Your task to perform on an android device: toggle location history Image 0: 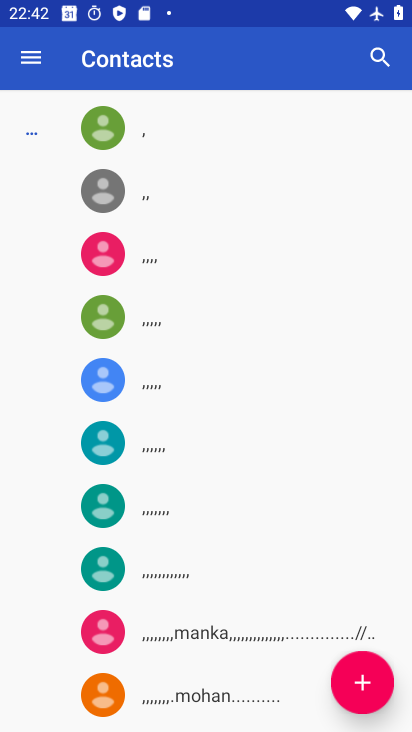
Step 0: press home button
Your task to perform on an android device: toggle location history Image 1: 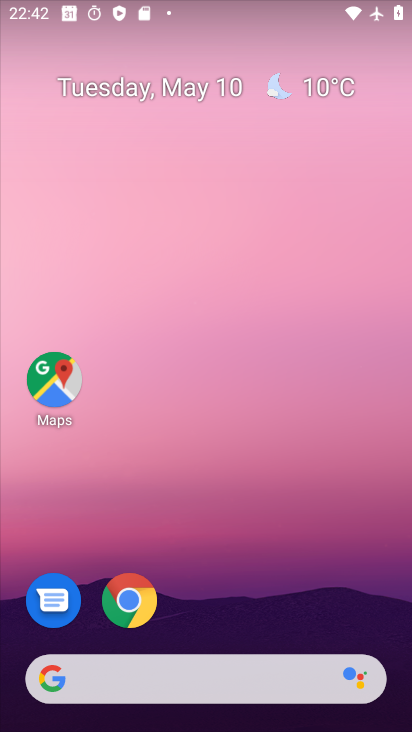
Step 1: drag from (292, 491) to (380, 33)
Your task to perform on an android device: toggle location history Image 2: 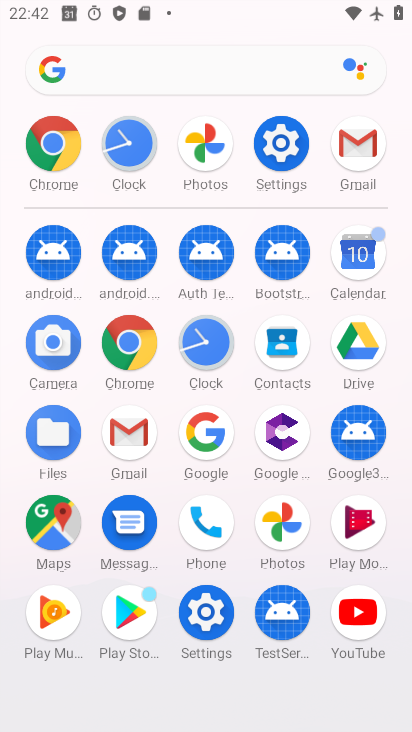
Step 2: click (272, 152)
Your task to perform on an android device: toggle location history Image 3: 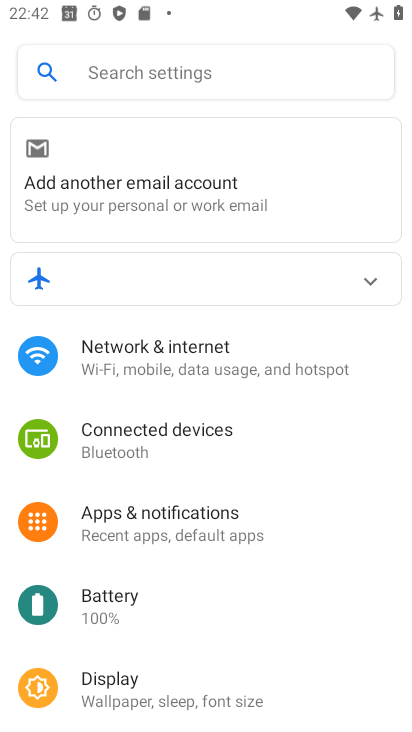
Step 3: drag from (296, 542) to (298, 163)
Your task to perform on an android device: toggle location history Image 4: 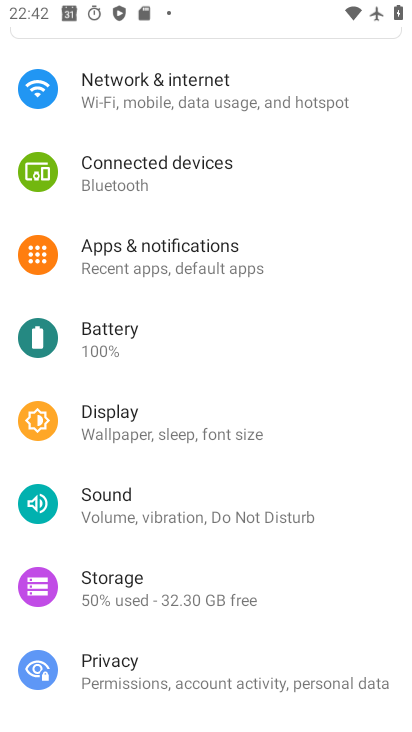
Step 4: drag from (169, 584) to (189, 179)
Your task to perform on an android device: toggle location history Image 5: 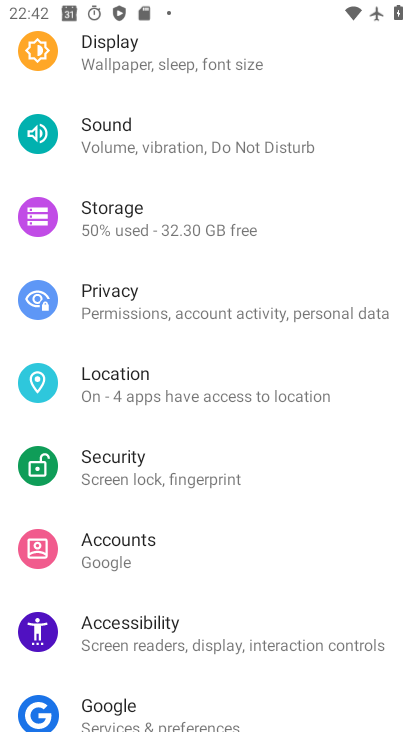
Step 5: click (125, 390)
Your task to perform on an android device: toggle location history Image 6: 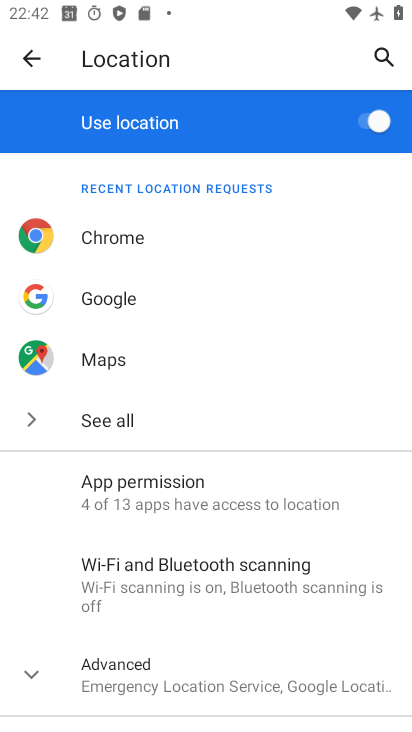
Step 6: drag from (245, 578) to (270, 264)
Your task to perform on an android device: toggle location history Image 7: 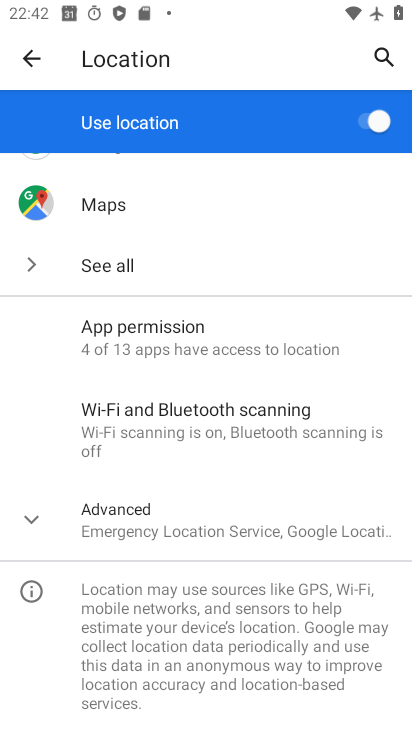
Step 7: drag from (172, 603) to (184, 299)
Your task to perform on an android device: toggle location history Image 8: 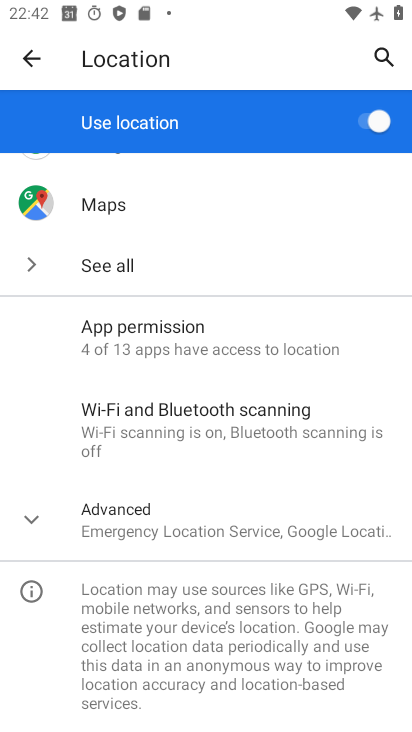
Step 8: click (166, 529)
Your task to perform on an android device: toggle location history Image 9: 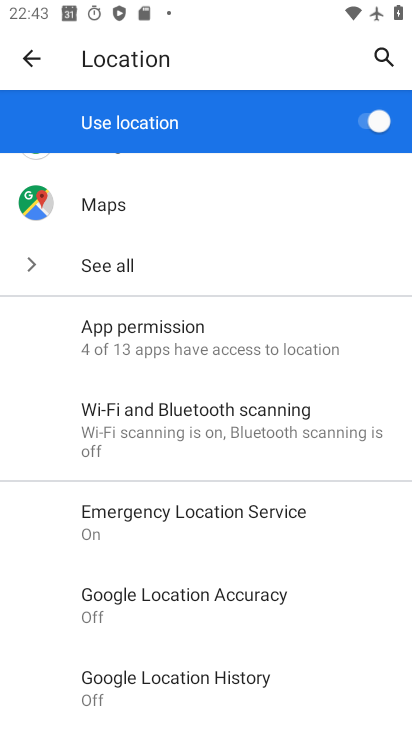
Step 9: drag from (132, 613) to (178, 271)
Your task to perform on an android device: toggle location history Image 10: 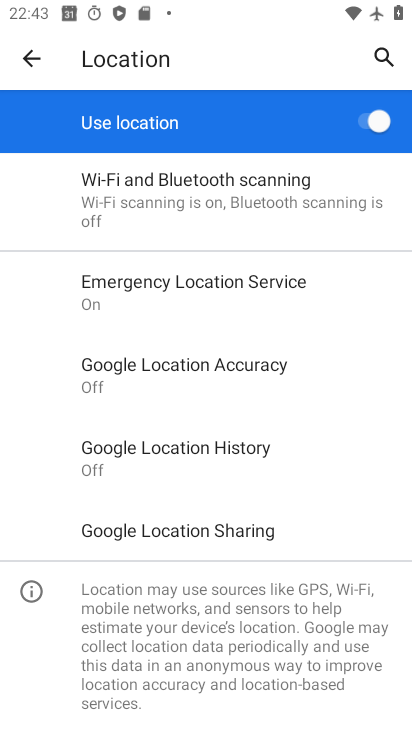
Step 10: click (193, 457)
Your task to perform on an android device: toggle location history Image 11: 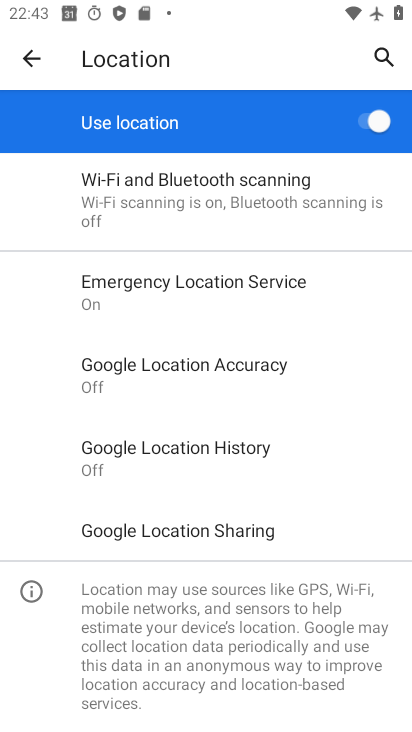
Step 11: drag from (234, 620) to (242, 269)
Your task to perform on an android device: toggle location history Image 12: 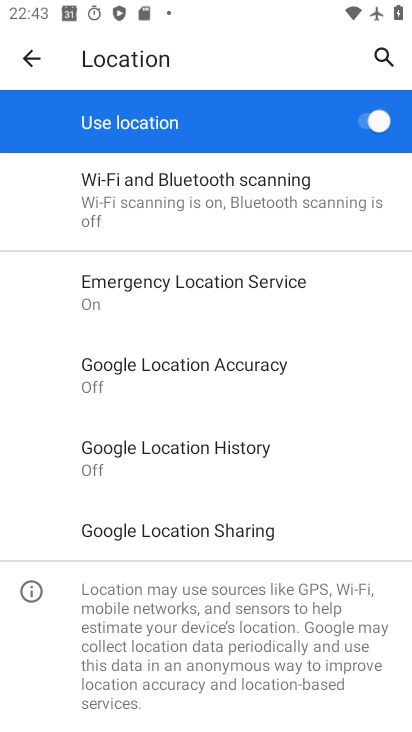
Step 12: click (183, 457)
Your task to perform on an android device: toggle location history Image 13: 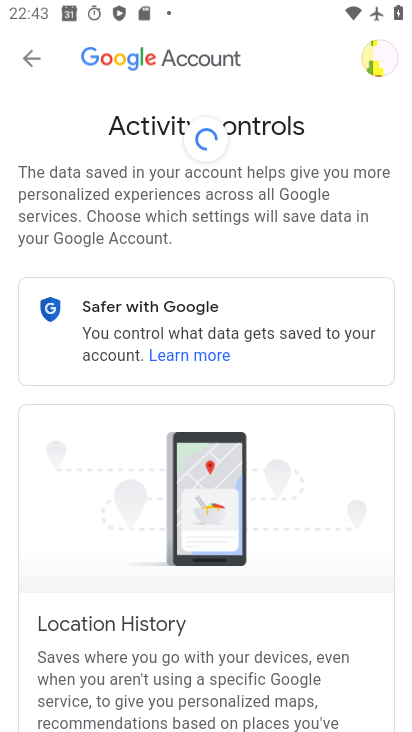
Step 13: drag from (276, 654) to (330, 377)
Your task to perform on an android device: toggle location history Image 14: 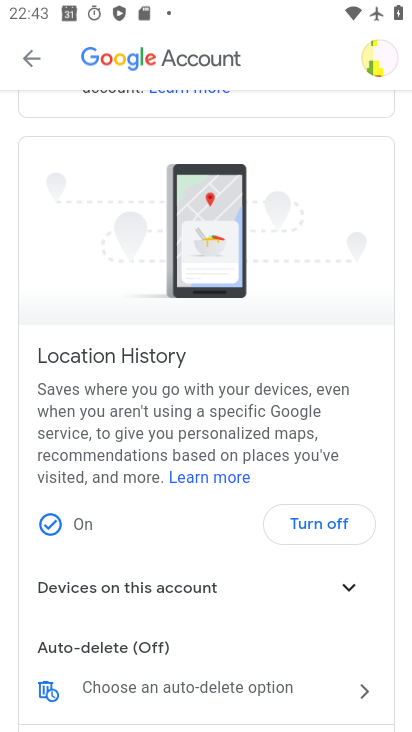
Step 14: click (317, 525)
Your task to perform on an android device: toggle location history Image 15: 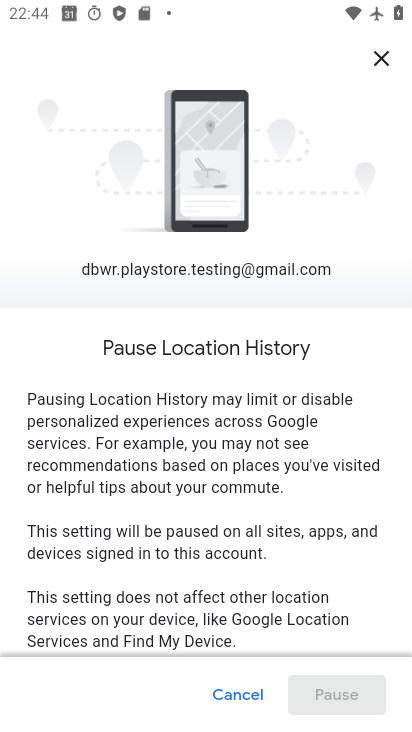
Step 15: drag from (267, 599) to (304, 267)
Your task to perform on an android device: toggle location history Image 16: 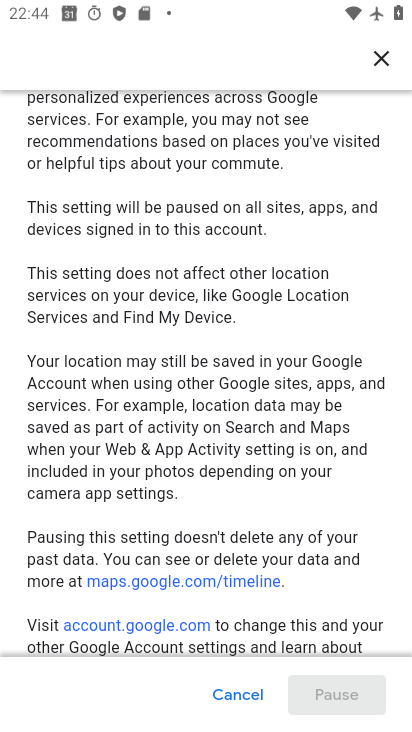
Step 16: drag from (253, 560) to (323, 228)
Your task to perform on an android device: toggle location history Image 17: 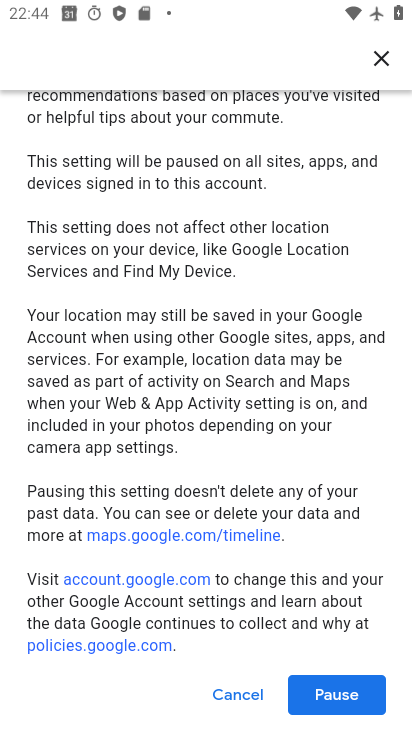
Step 17: drag from (274, 559) to (276, 283)
Your task to perform on an android device: toggle location history Image 18: 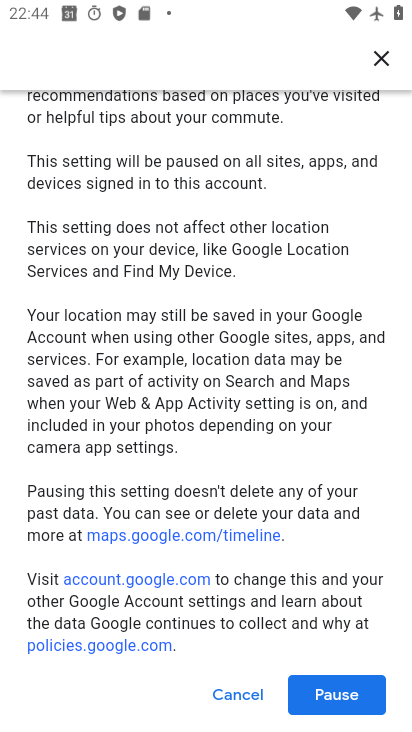
Step 18: click (342, 705)
Your task to perform on an android device: toggle location history Image 19: 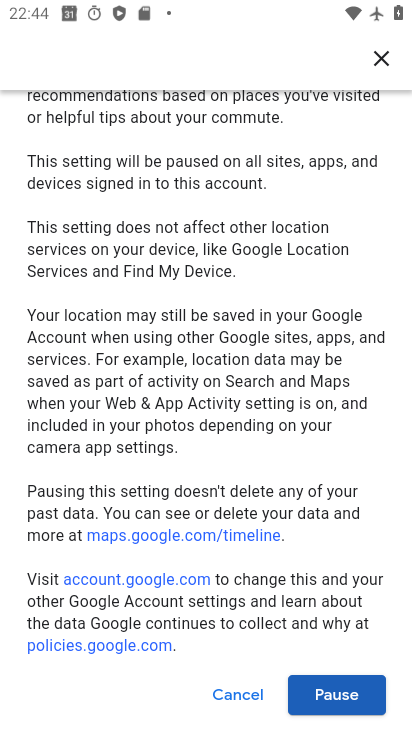
Step 19: click (355, 700)
Your task to perform on an android device: toggle location history Image 20: 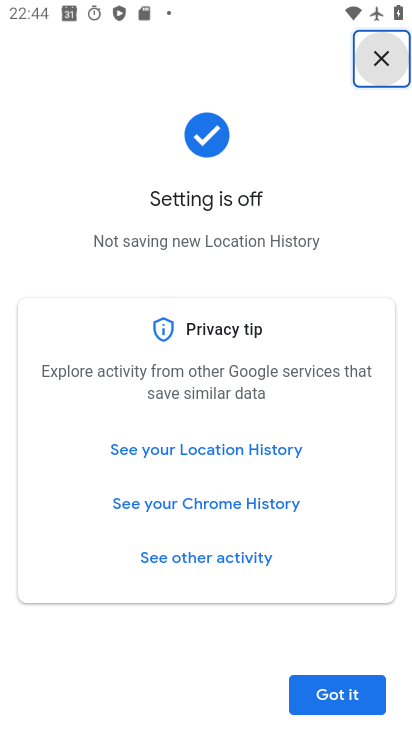
Step 20: click (355, 700)
Your task to perform on an android device: toggle location history Image 21: 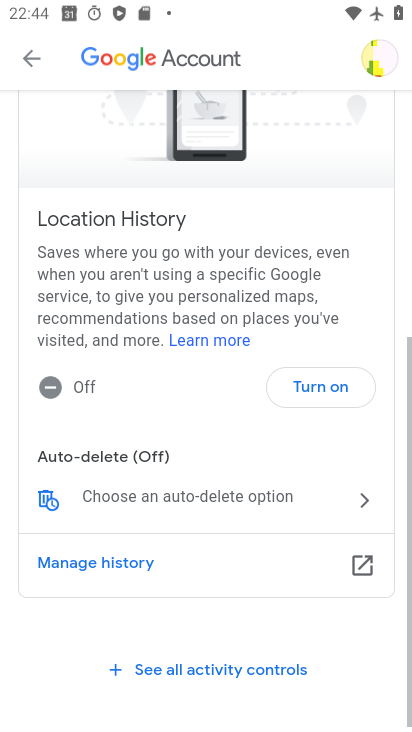
Step 21: task complete